Your task to perform on an android device: uninstall "LiveIn - Share Your Moment" Image 0: 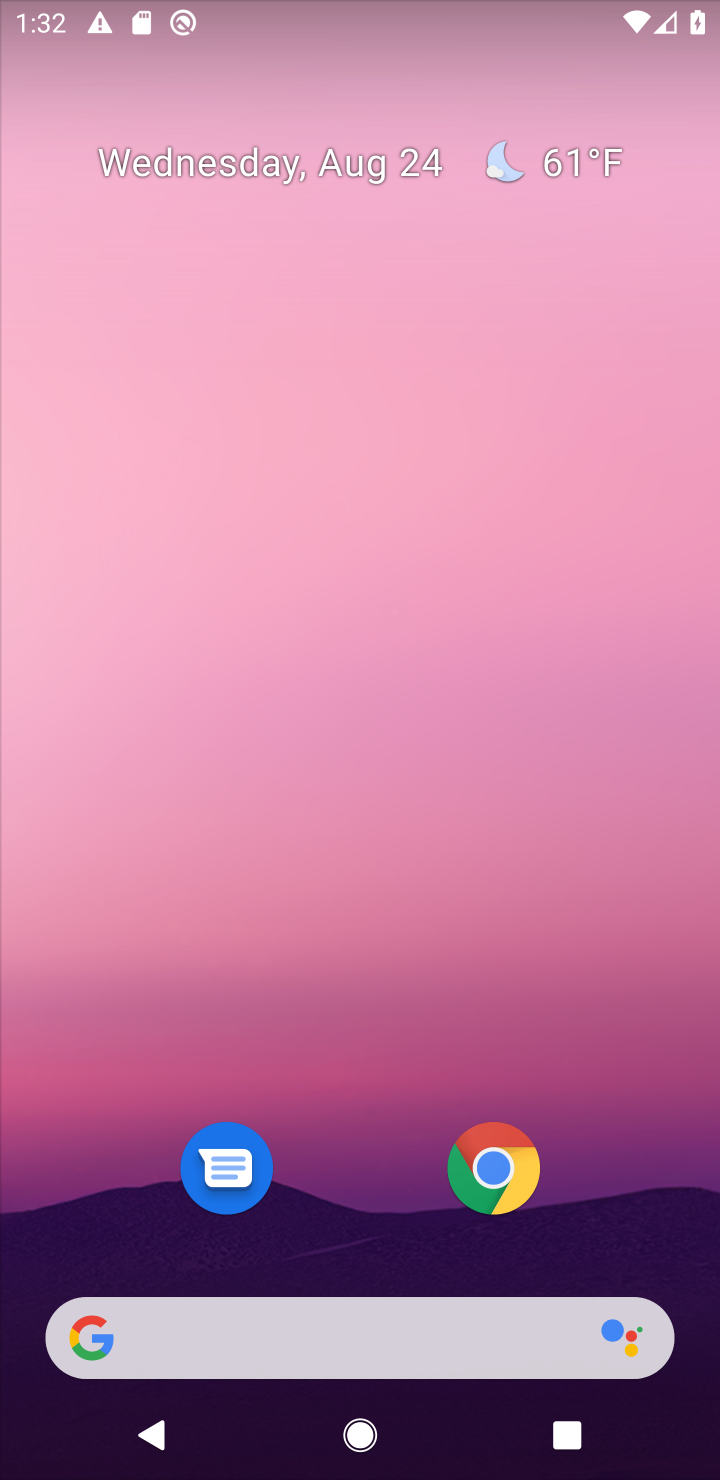
Step 0: drag from (690, 1298) to (619, 143)
Your task to perform on an android device: uninstall "LiveIn - Share Your Moment" Image 1: 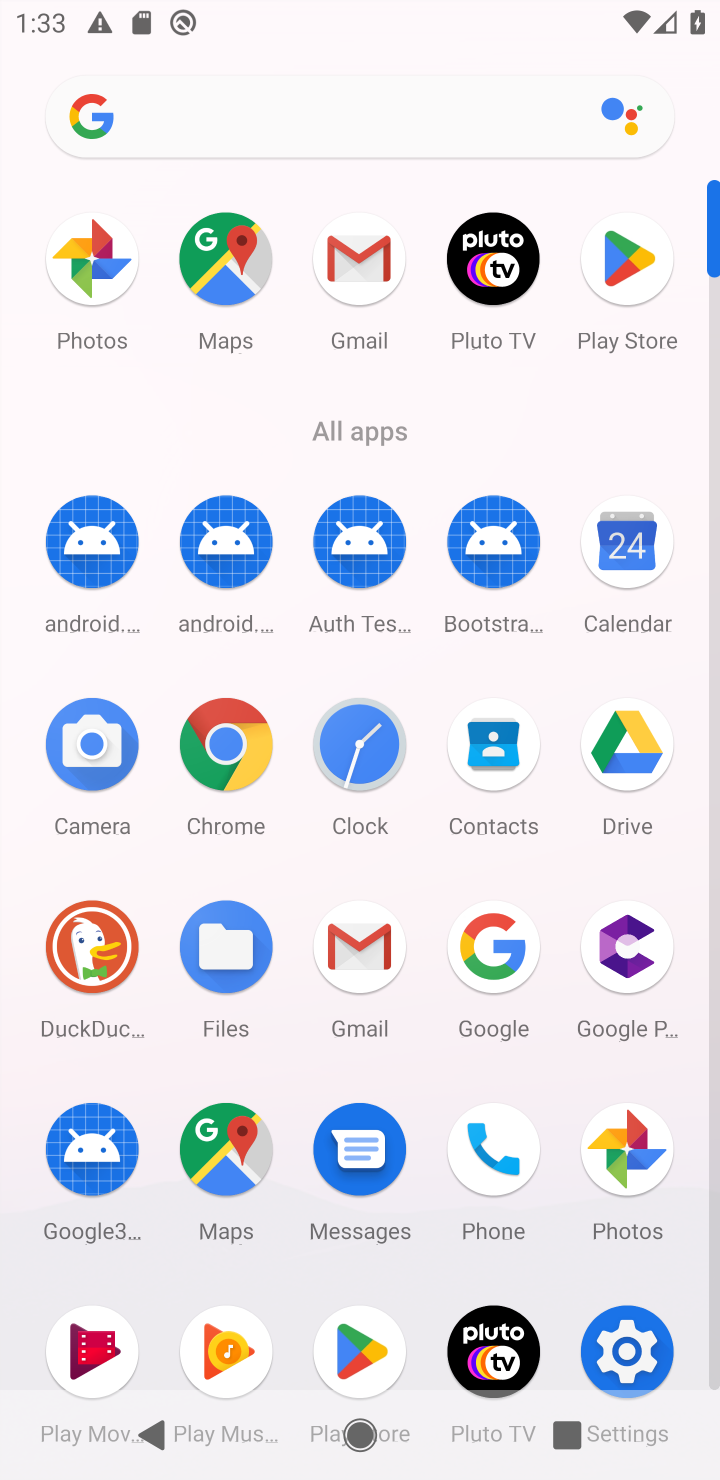
Step 1: click (357, 1341)
Your task to perform on an android device: uninstall "LiveIn - Share Your Moment" Image 2: 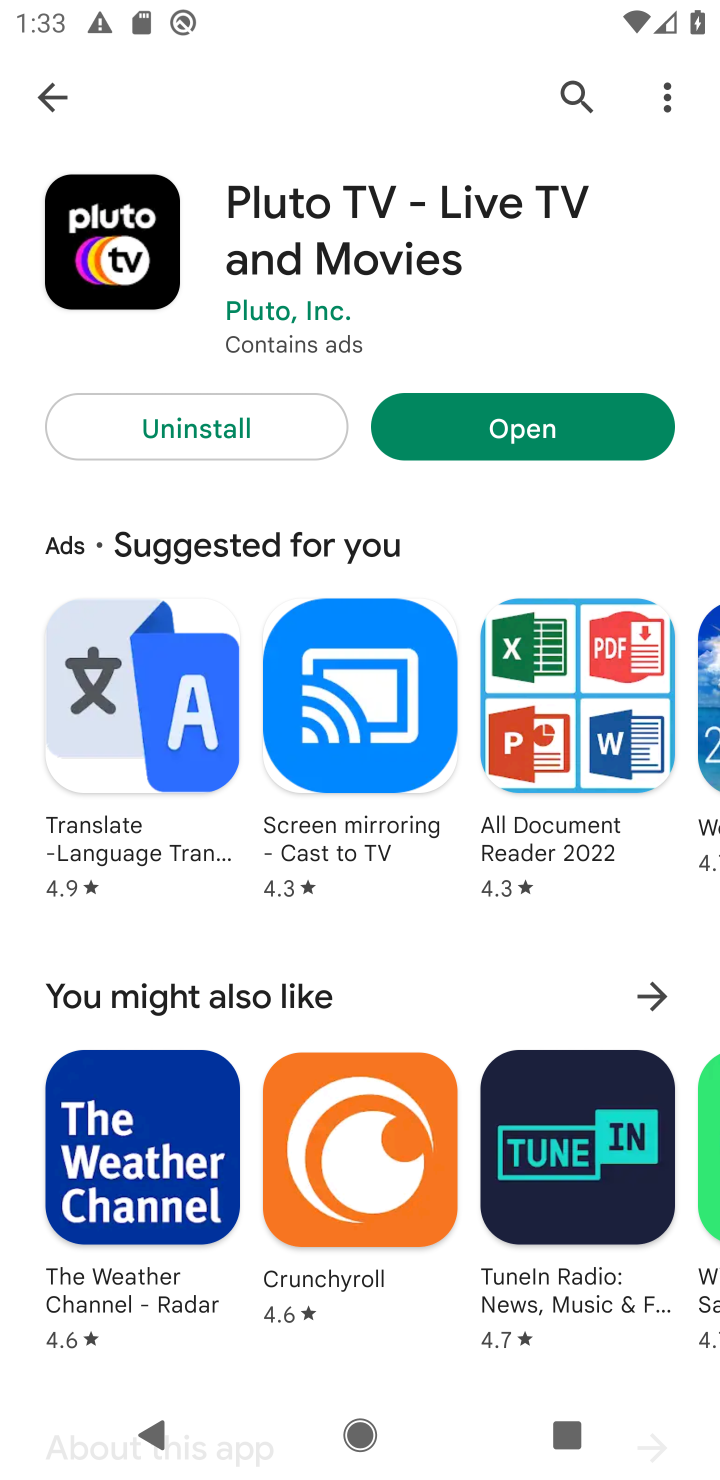
Step 2: click (572, 93)
Your task to perform on an android device: uninstall "LiveIn - Share Your Moment" Image 3: 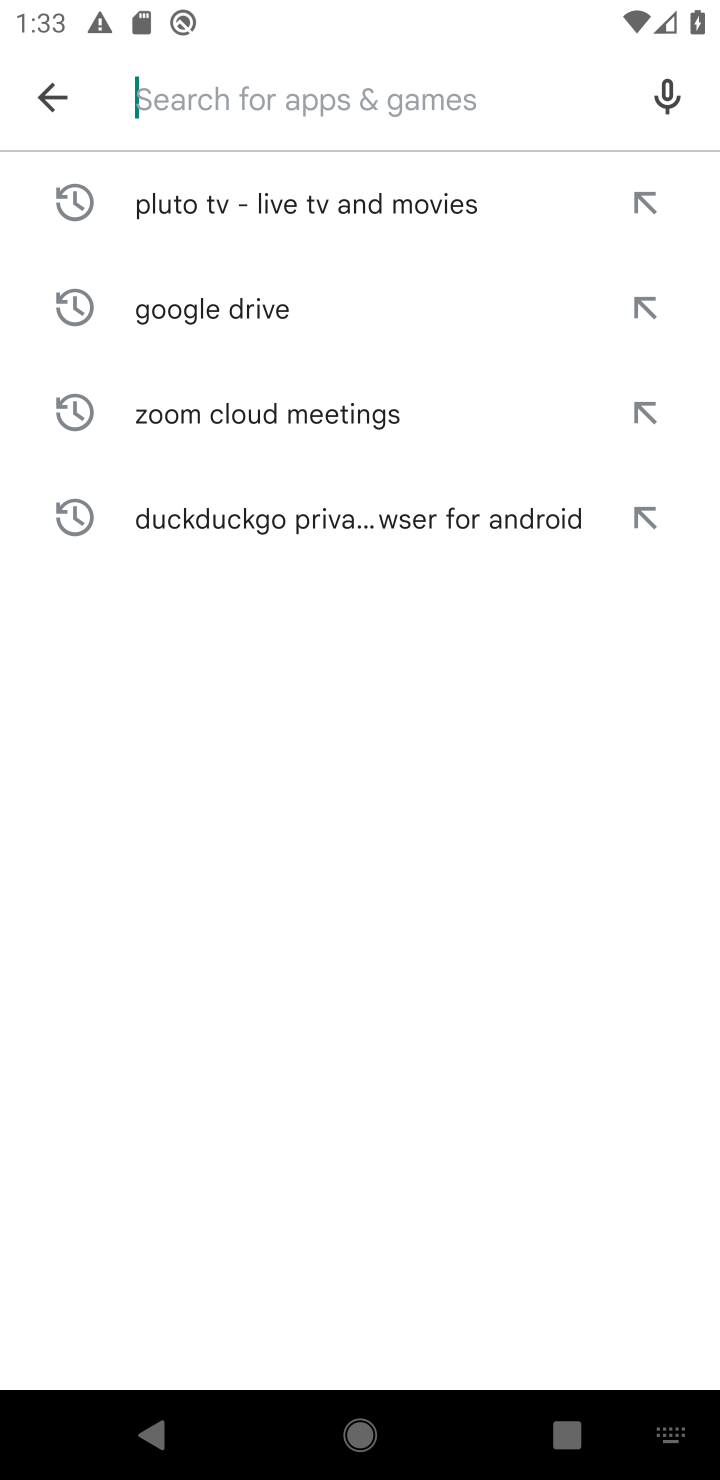
Step 3: type "LiveIn - Share Your Momen"
Your task to perform on an android device: uninstall "LiveIn - Share Your Moment" Image 4: 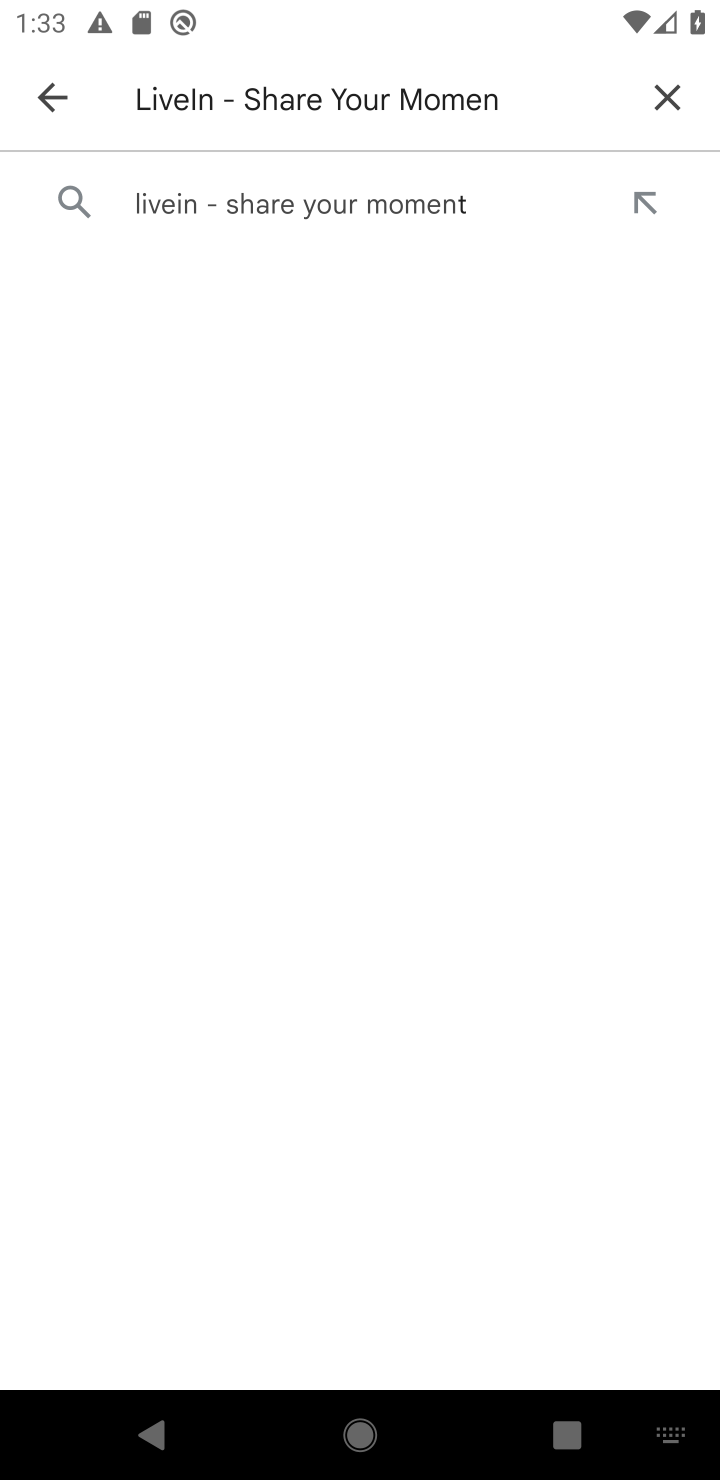
Step 4: click (221, 198)
Your task to perform on an android device: uninstall "LiveIn - Share Your Moment" Image 5: 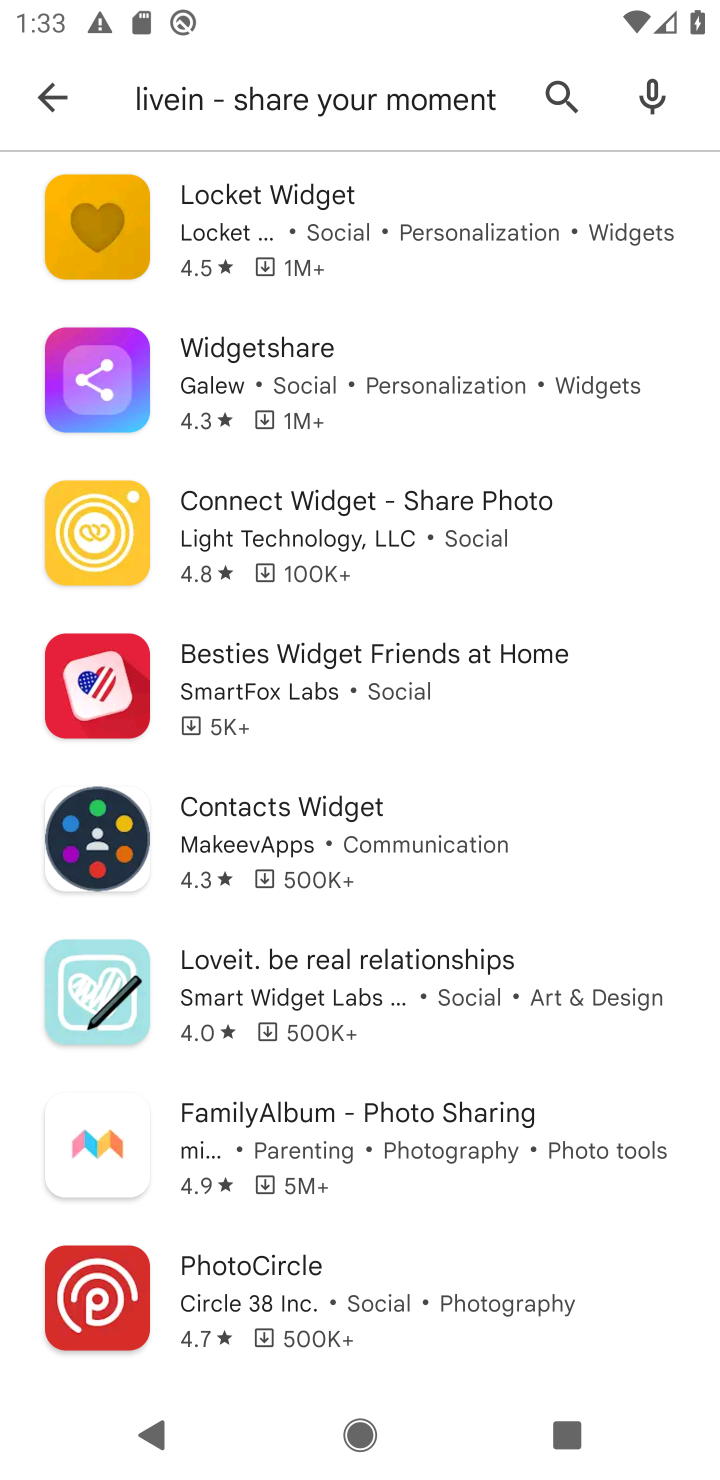
Step 5: drag from (427, 1055) to (482, 419)
Your task to perform on an android device: uninstall "LiveIn - Share Your Moment" Image 6: 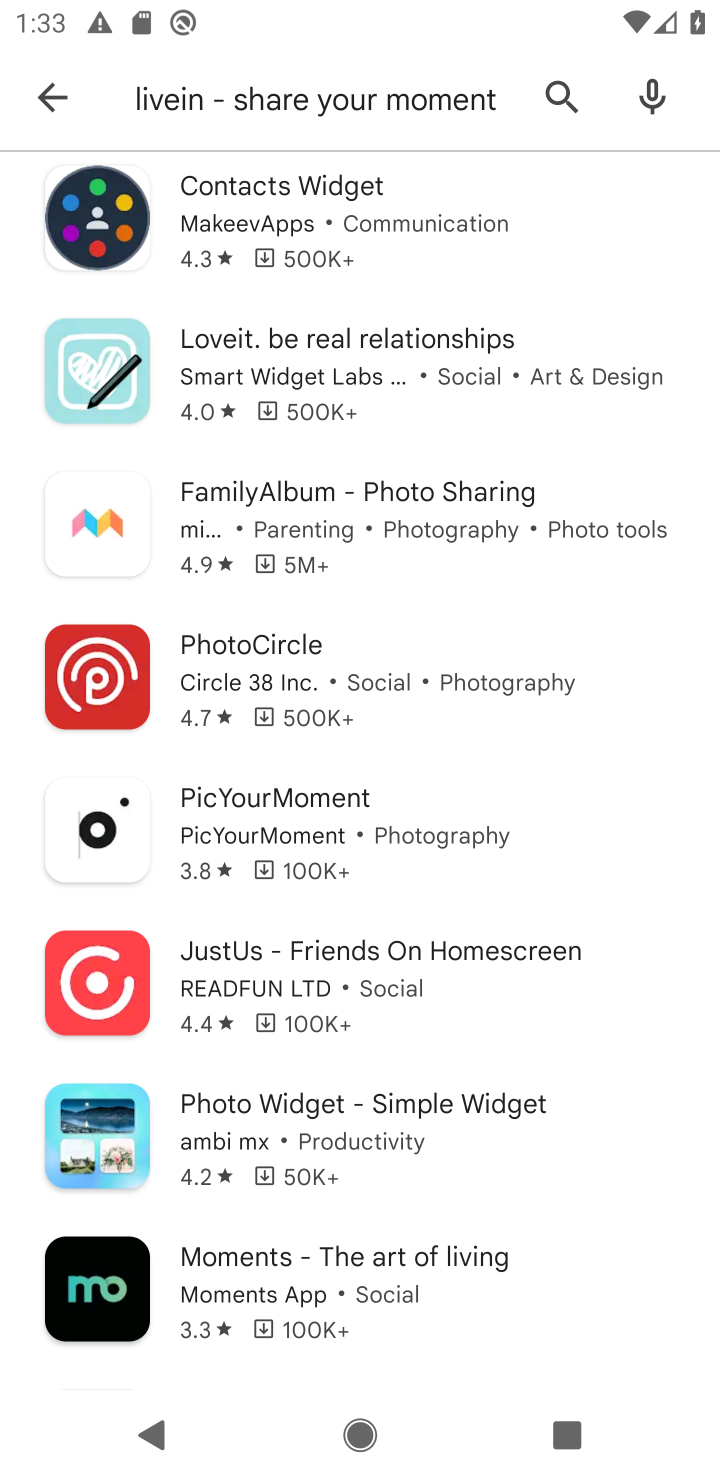
Step 6: drag from (548, 1232) to (550, 482)
Your task to perform on an android device: uninstall "LiveIn - Share Your Moment" Image 7: 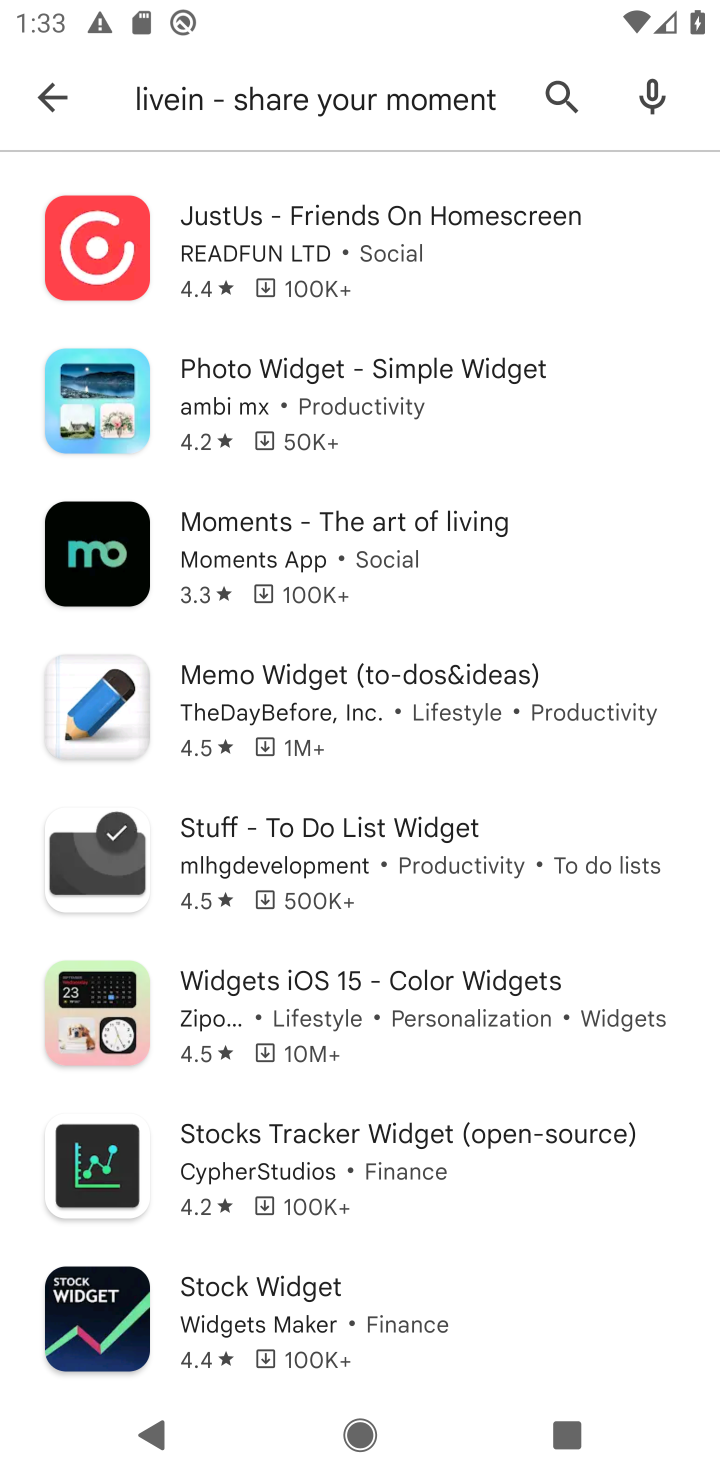
Step 7: click (550, 482)
Your task to perform on an android device: uninstall "LiveIn - Share Your Moment" Image 8: 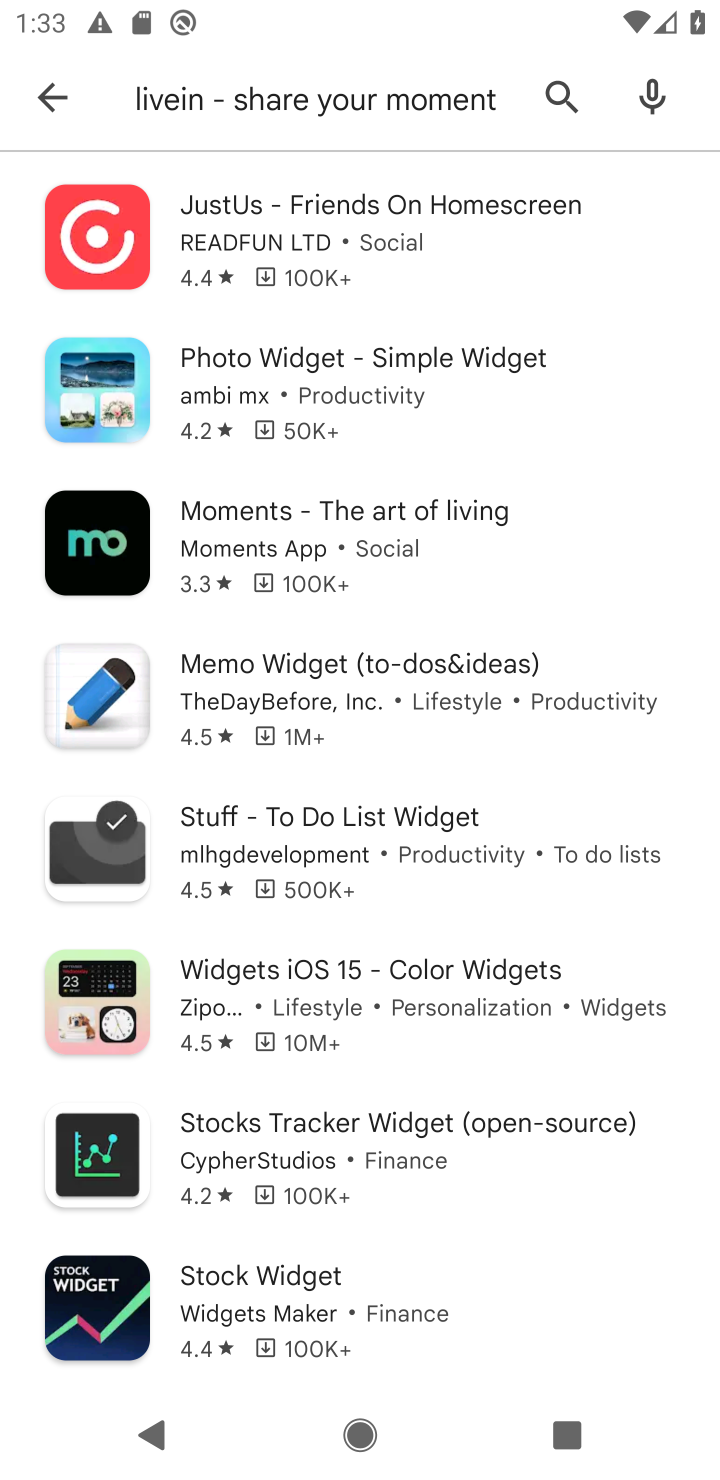
Step 8: task complete